Your task to perform on an android device: toggle notifications settings in the gmail app Image 0: 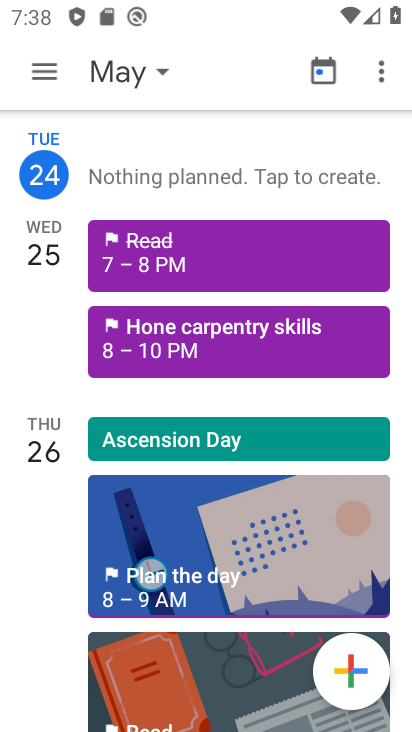
Step 0: press home button
Your task to perform on an android device: toggle notifications settings in the gmail app Image 1: 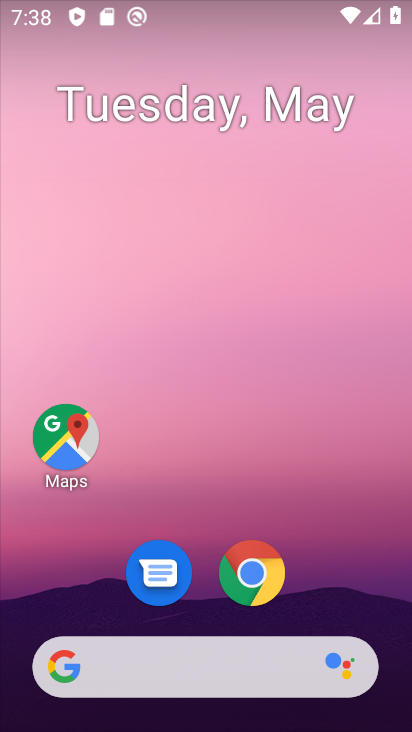
Step 1: drag from (203, 604) to (224, 219)
Your task to perform on an android device: toggle notifications settings in the gmail app Image 2: 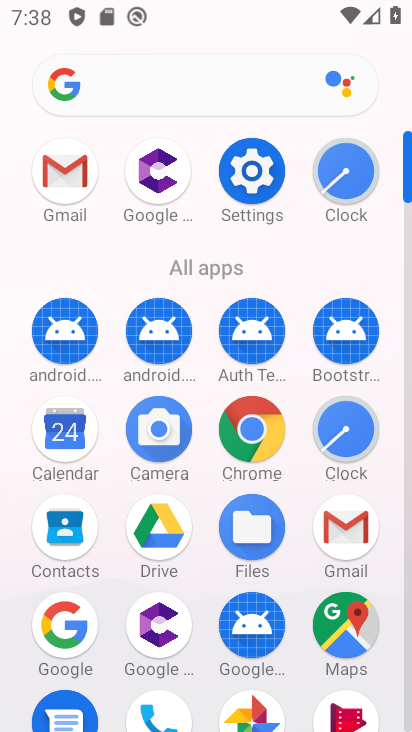
Step 2: click (348, 526)
Your task to perform on an android device: toggle notifications settings in the gmail app Image 3: 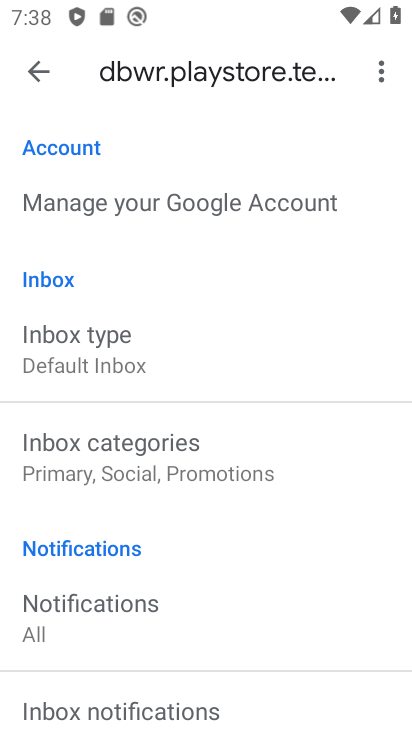
Step 3: drag from (110, 615) to (154, 226)
Your task to perform on an android device: toggle notifications settings in the gmail app Image 4: 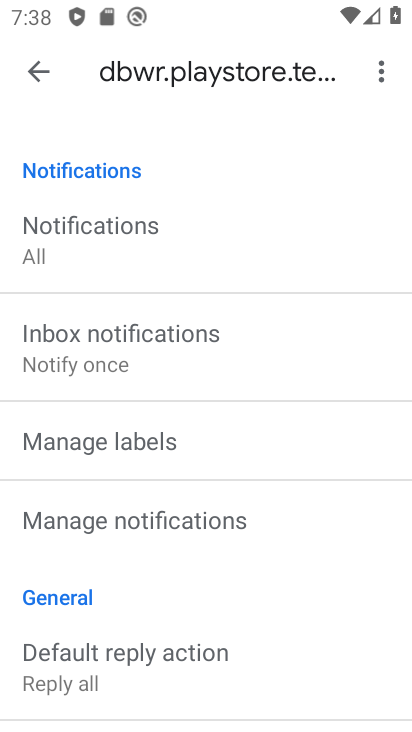
Step 4: click (89, 535)
Your task to perform on an android device: toggle notifications settings in the gmail app Image 5: 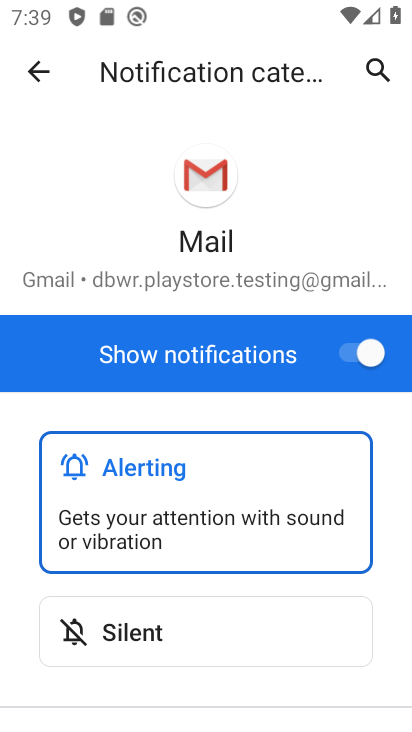
Step 5: click (358, 358)
Your task to perform on an android device: toggle notifications settings in the gmail app Image 6: 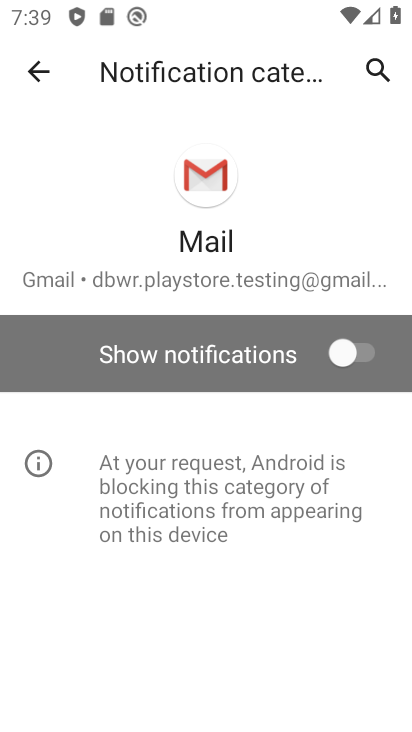
Step 6: task complete